Your task to perform on an android device: allow notifications from all sites in the chrome app Image 0: 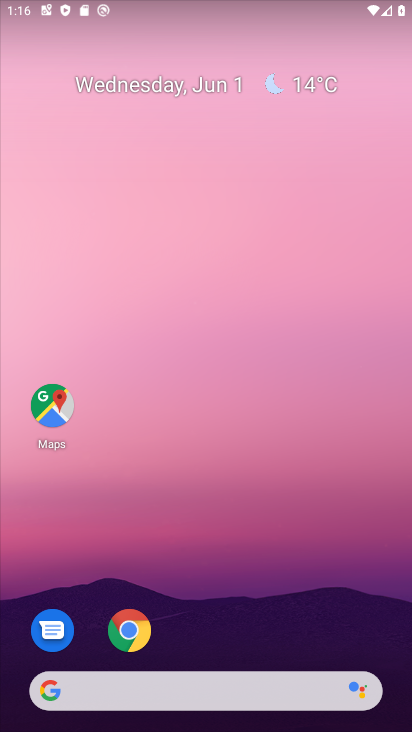
Step 0: click (127, 621)
Your task to perform on an android device: allow notifications from all sites in the chrome app Image 1: 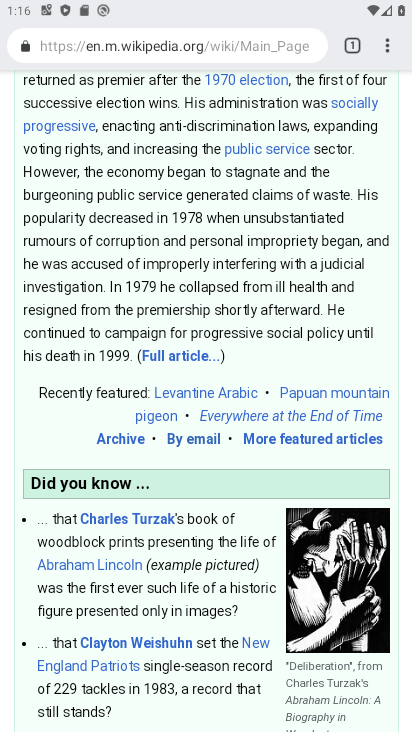
Step 1: click (387, 45)
Your task to perform on an android device: allow notifications from all sites in the chrome app Image 2: 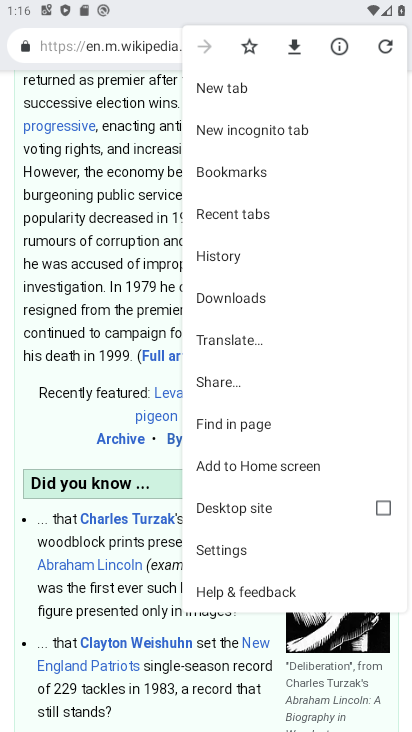
Step 2: click (261, 544)
Your task to perform on an android device: allow notifications from all sites in the chrome app Image 3: 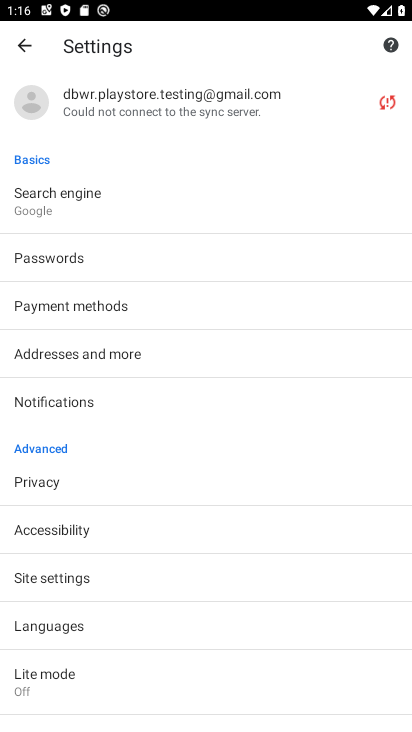
Step 3: click (100, 577)
Your task to perform on an android device: allow notifications from all sites in the chrome app Image 4: 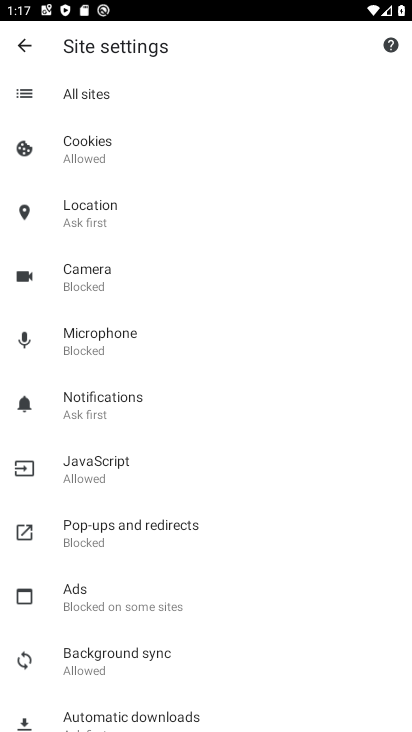
Step 4: click (140, 95)
Your task to perform on an android device: allow notifications from all sites in the chrome app Image 5: 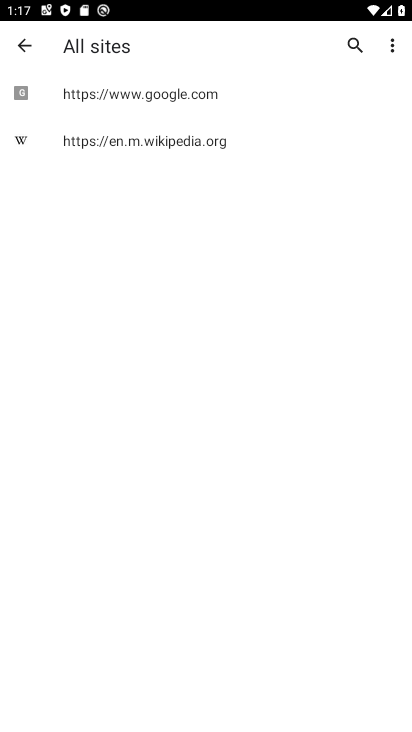
Step 5: click (237, 91)
Your task to perform on an android device: allow notifications from all sites in the chrome app Image 6: 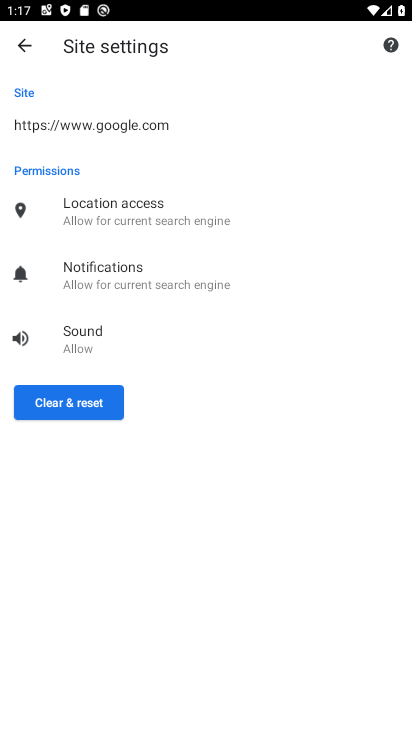
Step 6: click (27, 49)
Your task to perform on an android device: allow notifications from all sites in the chrome app Image 7: 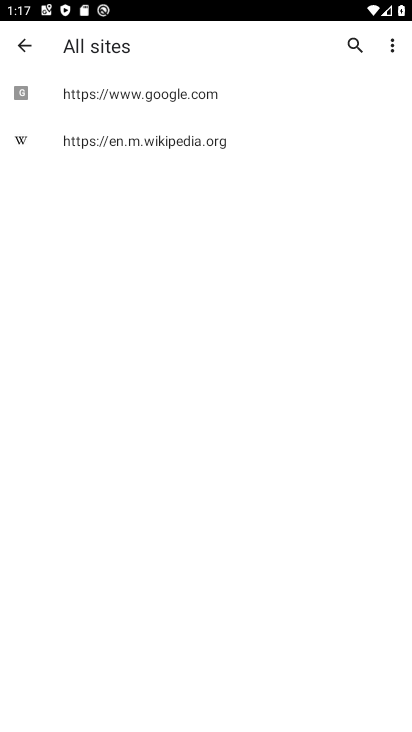
Step 7: click (48, 132)
Your task to perform on an android device: allow notifications from all sites in the chrome app Image 8: 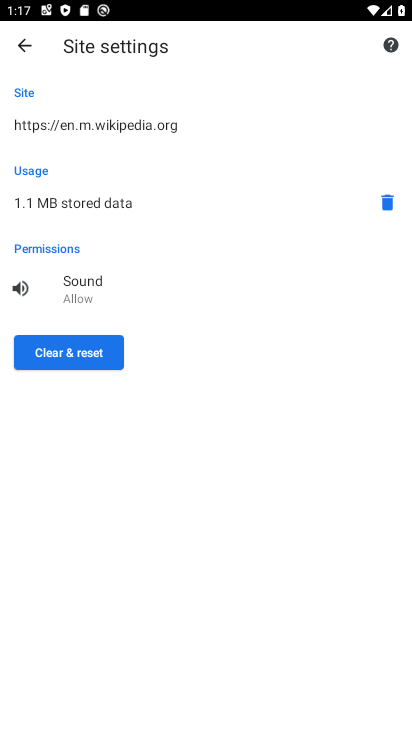
Step 8: click (29, 43)
Your task to perform on an android device: allow notifications from all sites in the chrome app Image 9: 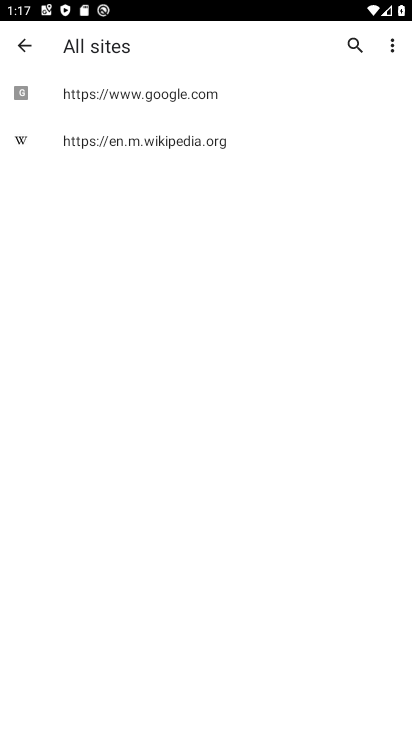
Step 9: task complete